Your task to perform on an android device: install app "Microsoft Outlook" Image 0: 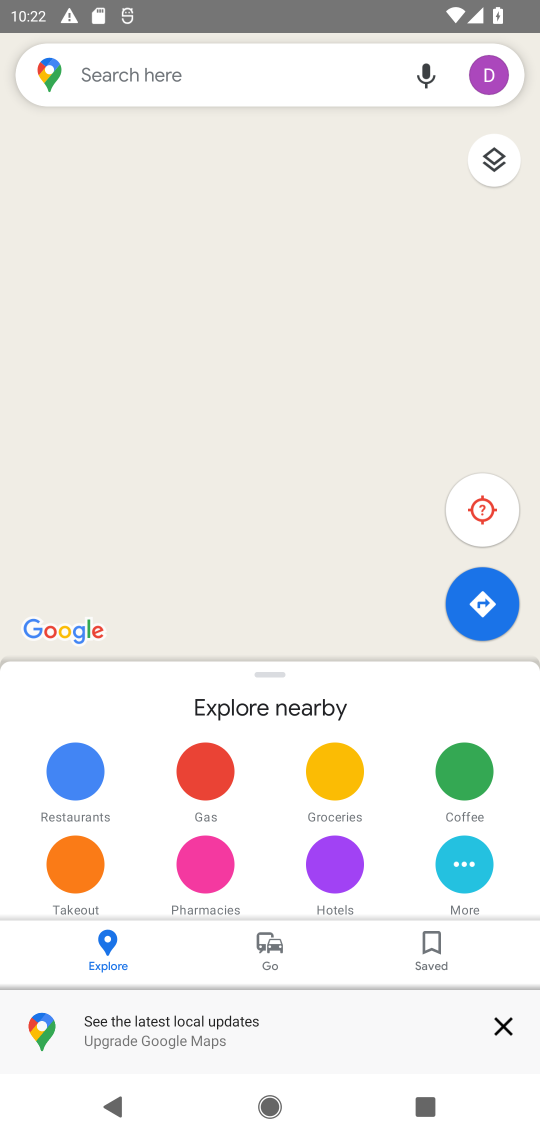
Step 0: press home button
Your task to perform on an android device: install app "Microsoft Outlook" Image 1: 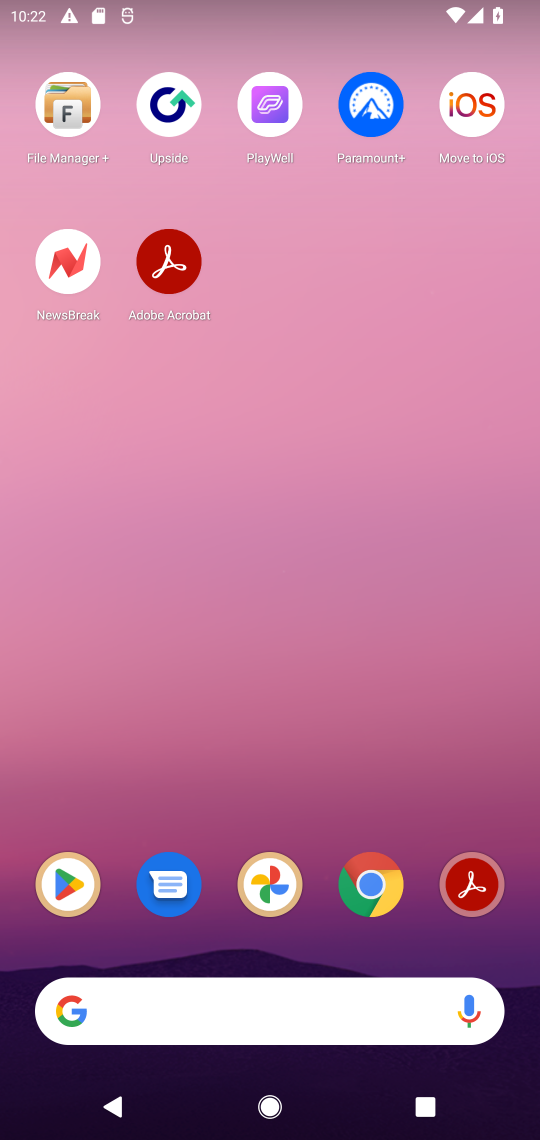
Step 1: click (58, 880)
Your task to perform on an android device: install app "Microsoft Outlook" Image 2: 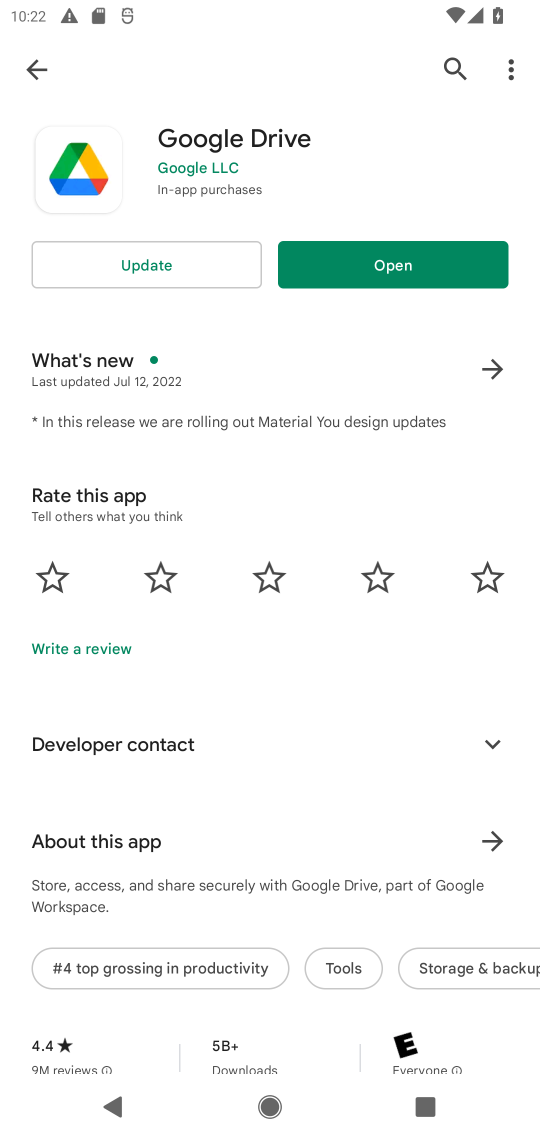
Step 2: click (455, 61)
Your task to perform on an android device: install app "Microsoft Outlook" Image 3: 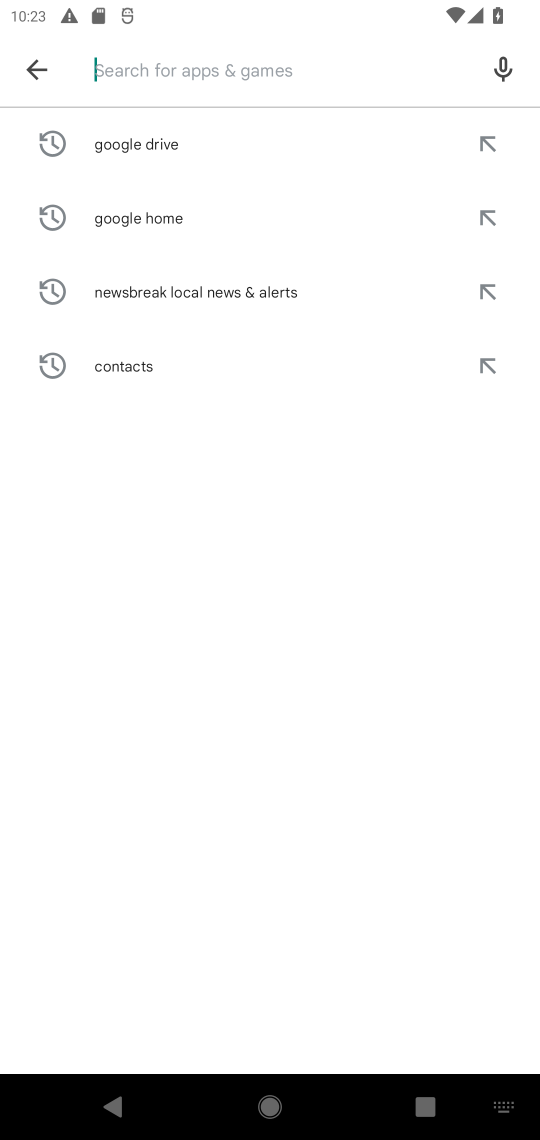
Step 3: type "microsoft outlook"
Your task to perform on an android device: install app "Microsoft Outlook" Image 4: 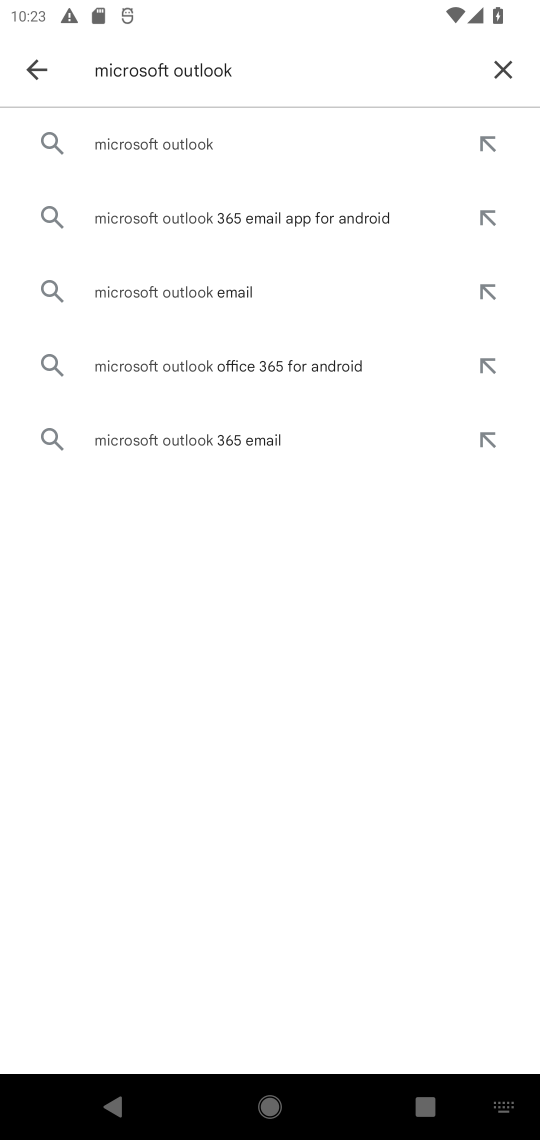
Step 4: click (244, 139)
Your task to perform on an android device: install app "Microsoft Outlook" Image 5: 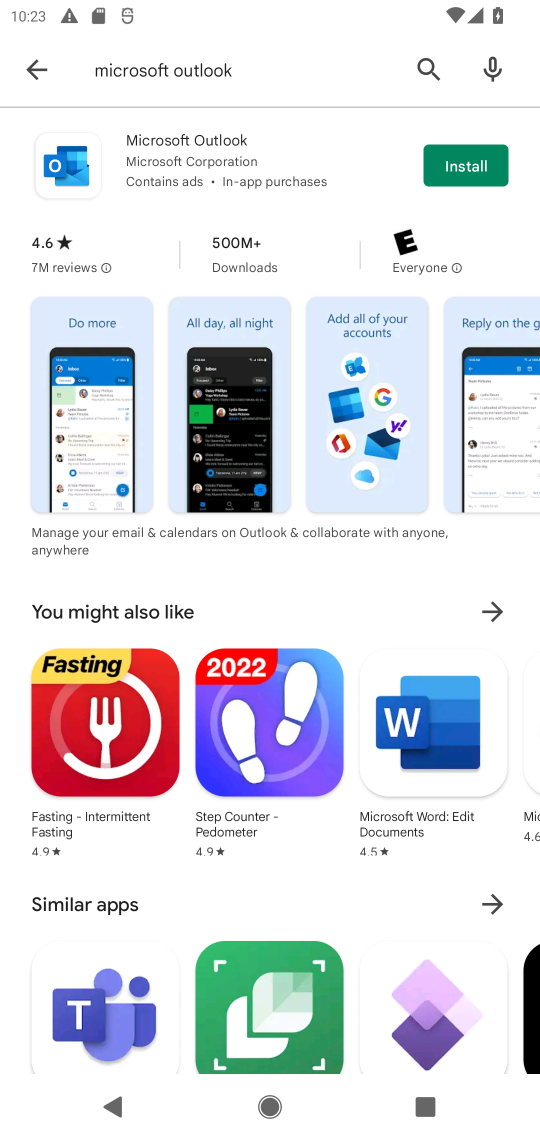
Step 5: click (292, 164)
Your task to perform on an android device: install app "Microsoft Outlook" Image 6: 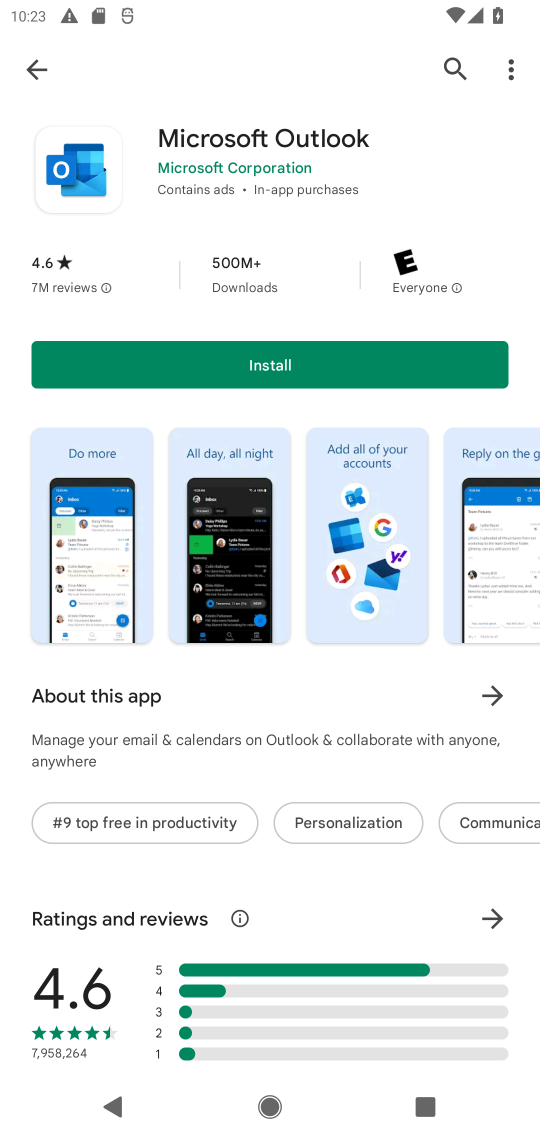
Step 6: click (175, 349)
Your task to perform on an android device: install app "Microsoft Outlook" Image 7: 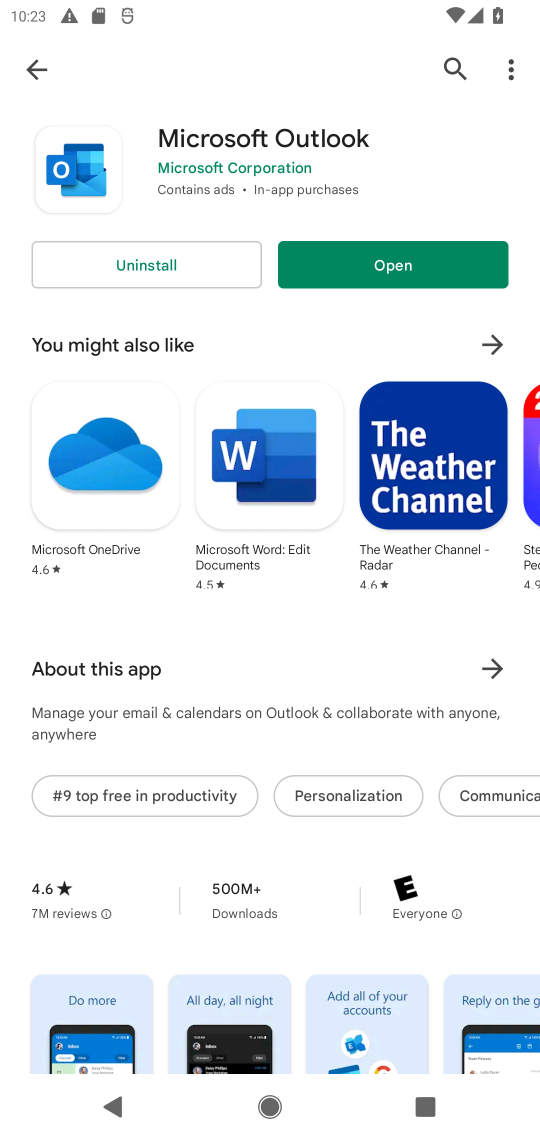
Step 7: task complete